Your task to perform on an android device: turn off location Image 0: 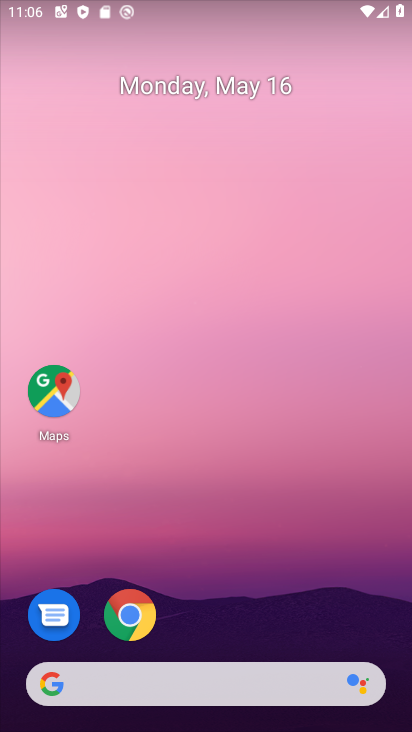
Step 0: drag from (214, 727) to (214, 106)
Your task to perform on an android device: turn off location Image 1: 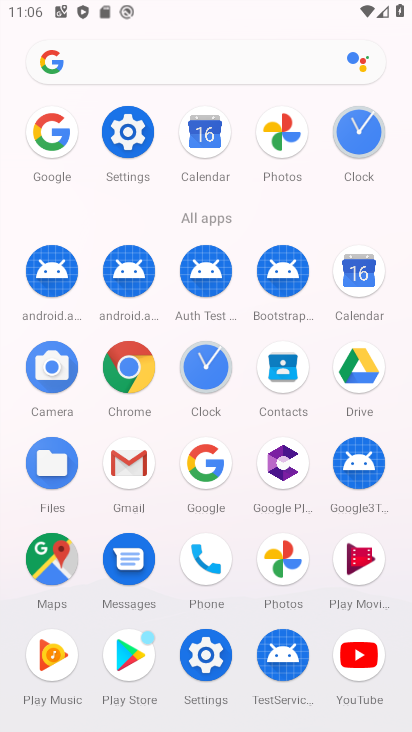
Step 1: click (122, 133)
Your task to perform on an android device: turn off location Image 2: 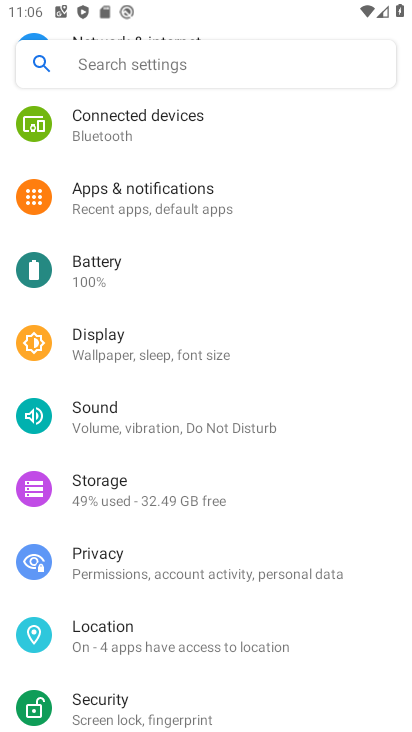
Step 2: click (126, 633)
Your task to perform on an android device: turn off location Image 3: 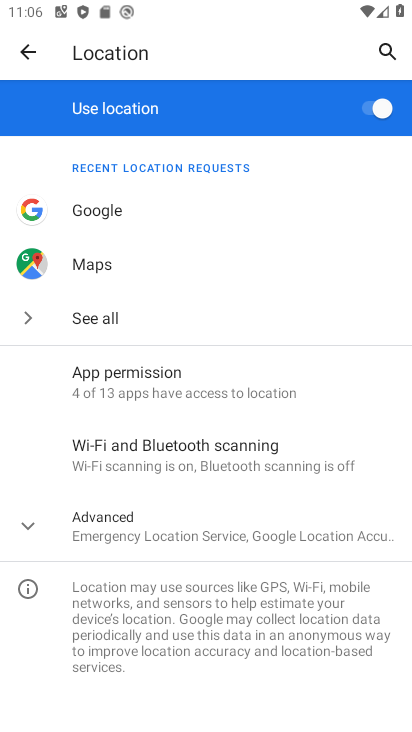
Step 3: click (360, 107)
Your task to perform on an android device: turn off location Image 4: 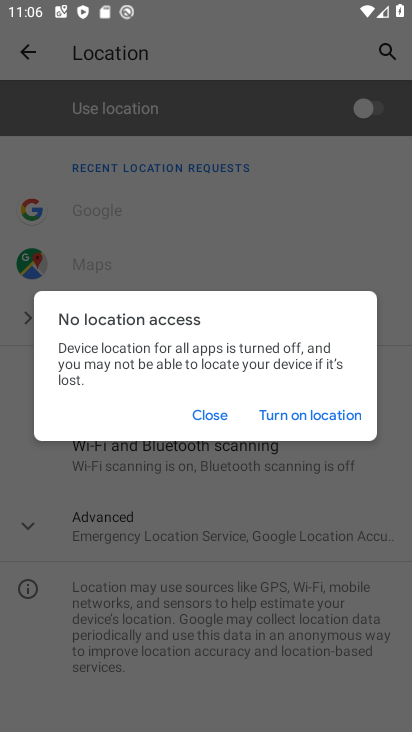
Step 4: task complete